Your task to perform on an android device: allow cookies in the chrome app Image 0: 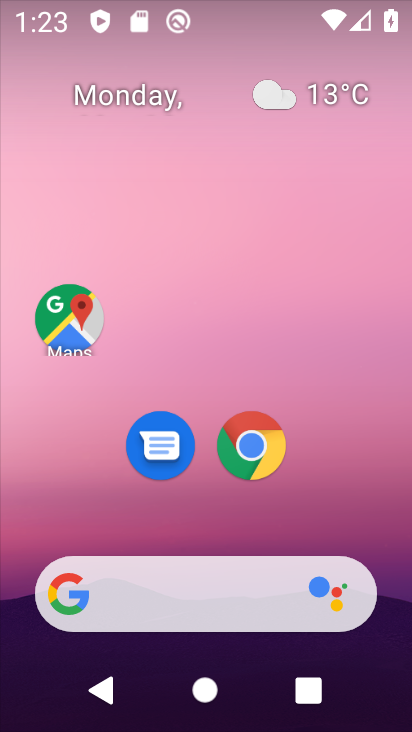
Step 0: click (258, 447)
Your task to perform on an android device: allow cookies in the chrome app Image 1: 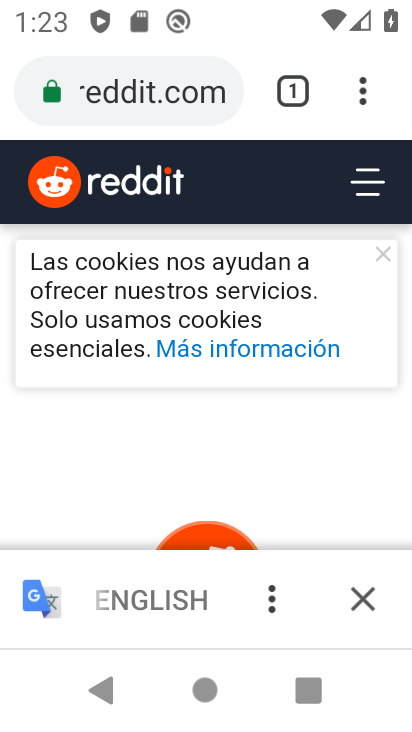
Step 1: click (359, 104)
Your task to perform on an android device: allow cookies in the chrome app Image 2: 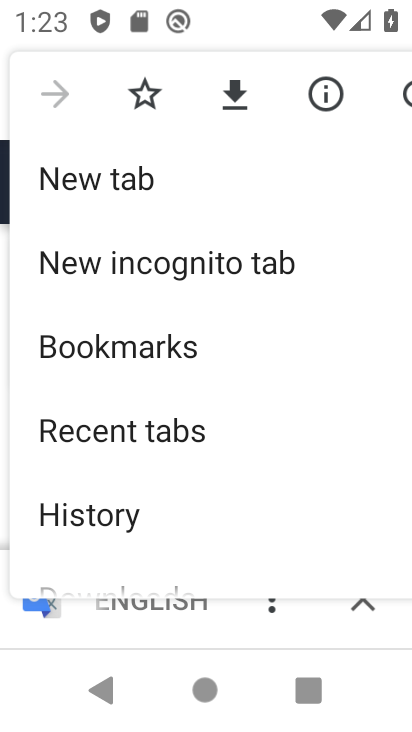
Step 2: drag from (162, 510) to (131, 378)
Your task to perform on an android device: allow cookies in the chrome app Image 3: 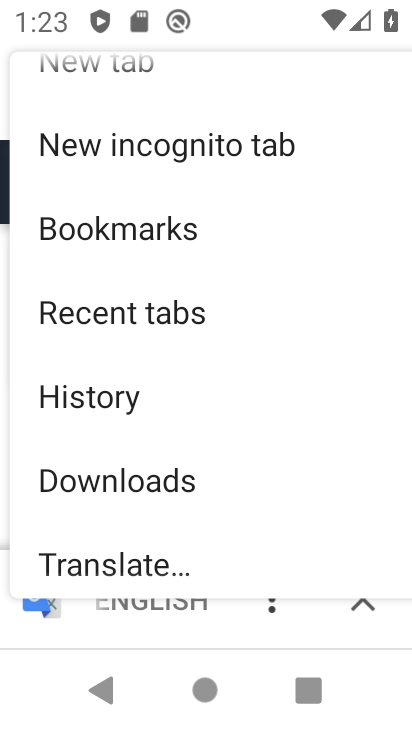
Step 3: drag from (225, 525) to (188, 267)
Your task to perform on an android device: allow cookies in the chrome app Image 4: 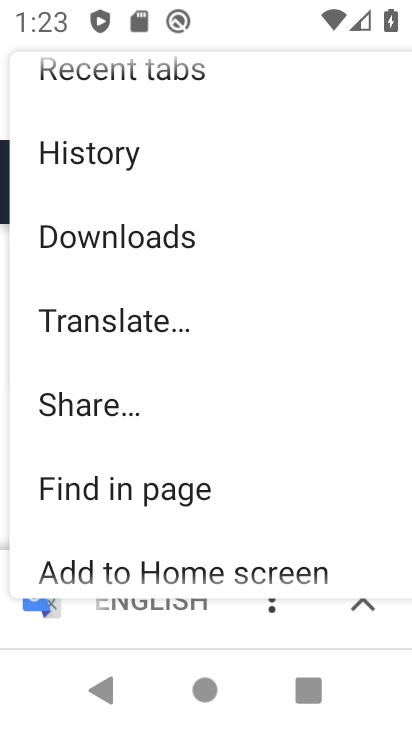
Step 4: drag from (179, 498) to (174, 248)
Your task to perform on an android device: allow cookies in the chrome app Image 5: 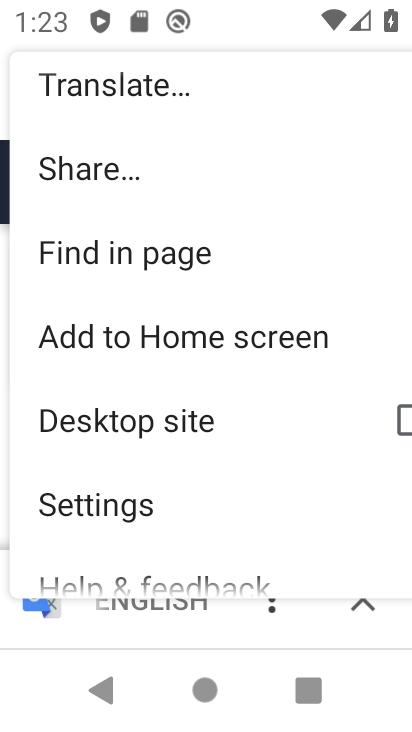
Step 5: click (93, 505)
Your task to perform on an android device: allow cookies in the chrome app Image 6: 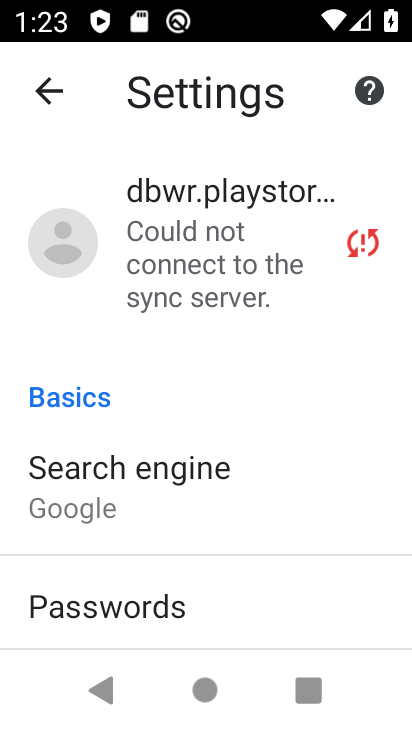
Step 6: drag from (184, 573) to (191, 263)
Your task to perform on an android device: allow cookies in the chrome app Image 7: 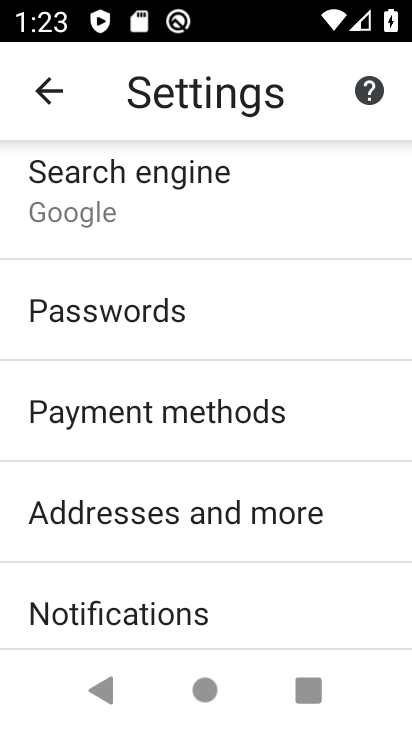
Step 7: drag from (187, 567) to (178, 183)
Your task to perform on an android device: allow cookies in the chrome app Image 8: 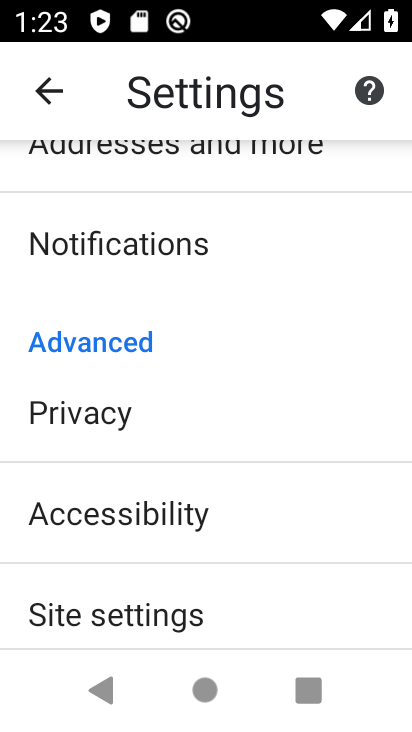
Step 8: drag from (148, 546) to (130, 351)
Your task to perform on an android device: allow cookies in the chrome app Image 9: 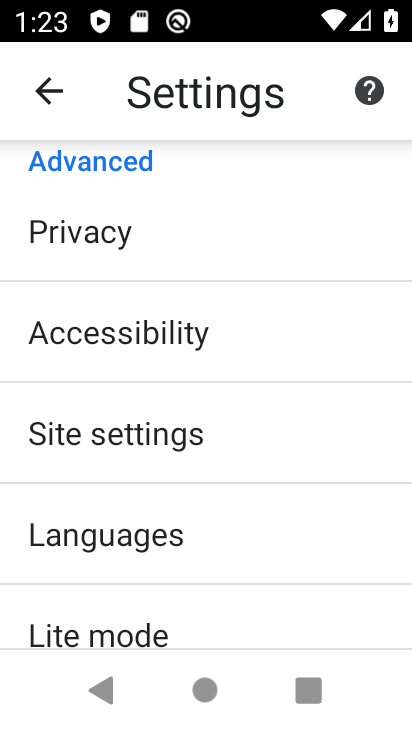
Step 9: click (123, 429)
Your task to perform on an android device: allow cookies in the chrome app Image 10: 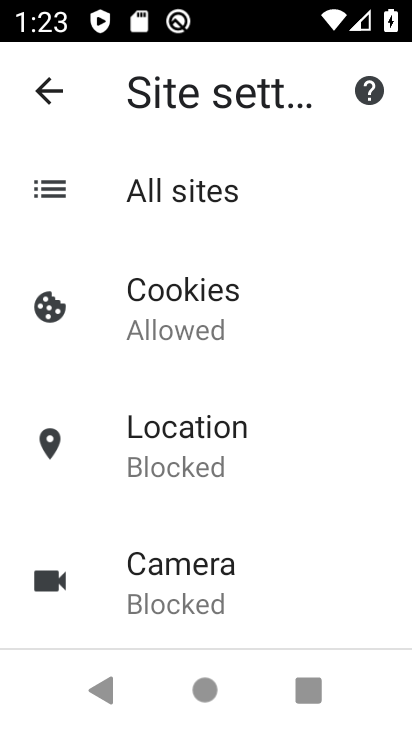
Step 10: click (187, 304)
Your task to perform on an android device: allow cookies in the chrome app Image 11: 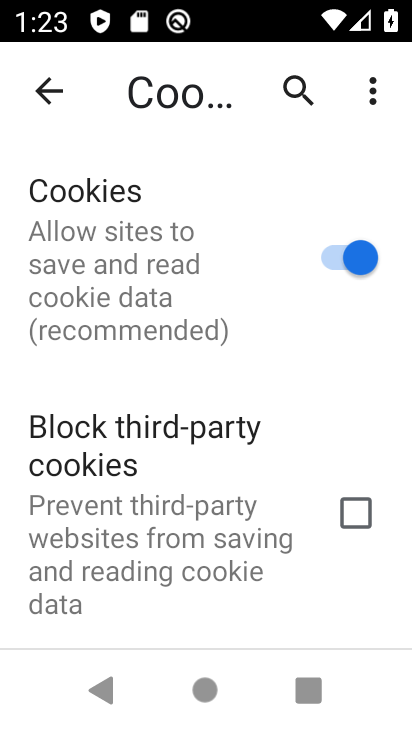
Step 11: task complete